Your task to perform on an android device: install app "Paramount+ | Peak Streaming" Image 0: 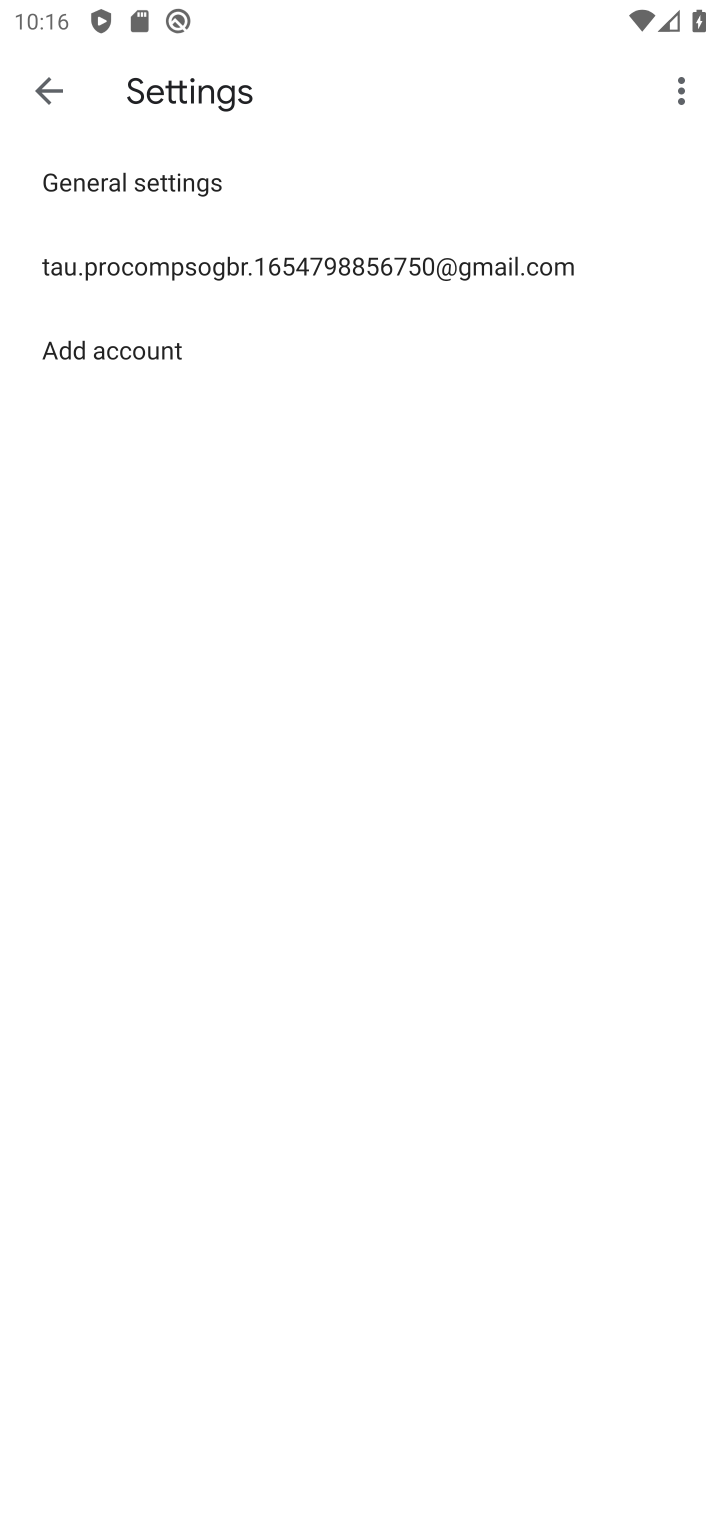
Step 0: press home button
Your task to perform on an android device: install app "Paramount+ | Peak Streaming" Image 1: 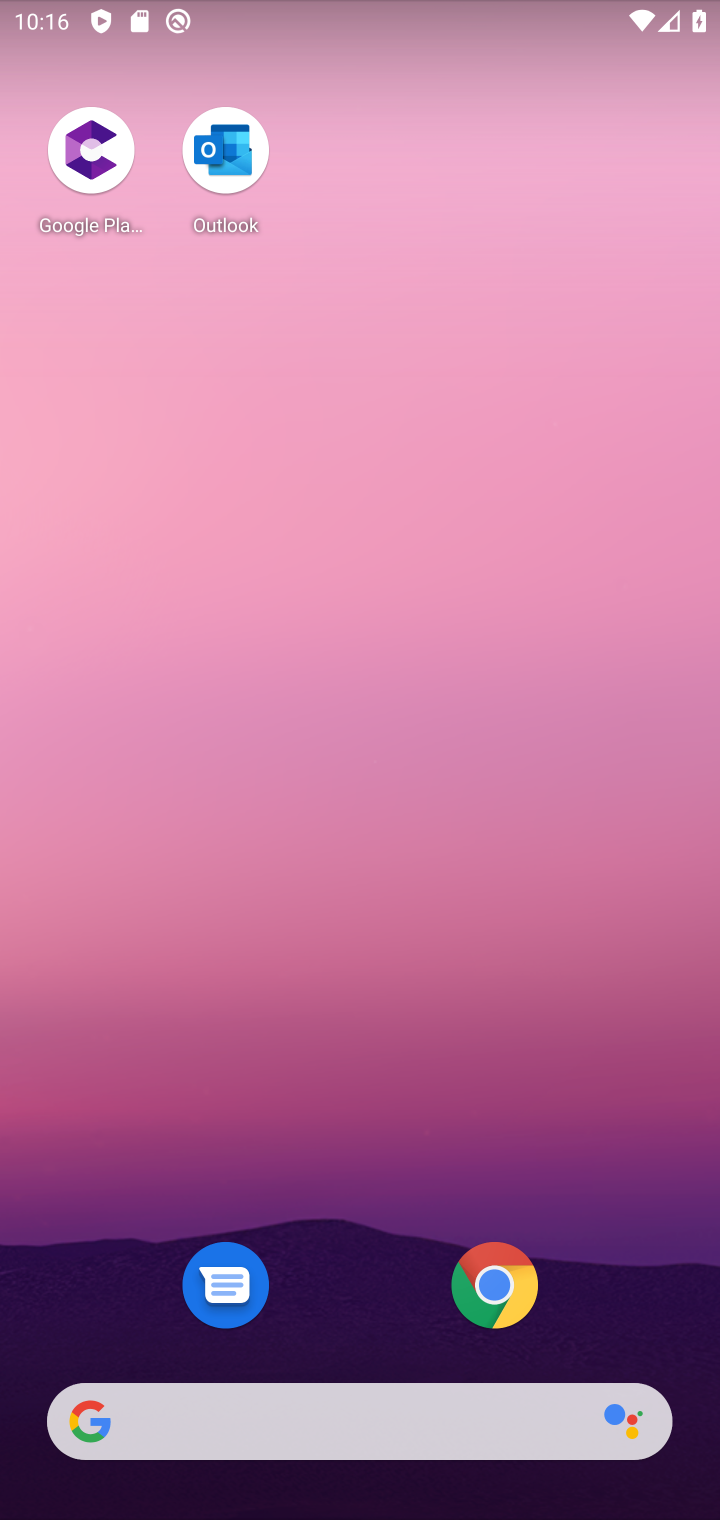
Step 1: drag from (310, 1253) to (303, 222)
Your task to perform on an android device: install app "Paramount+ | Peak Streaming" Image 2: 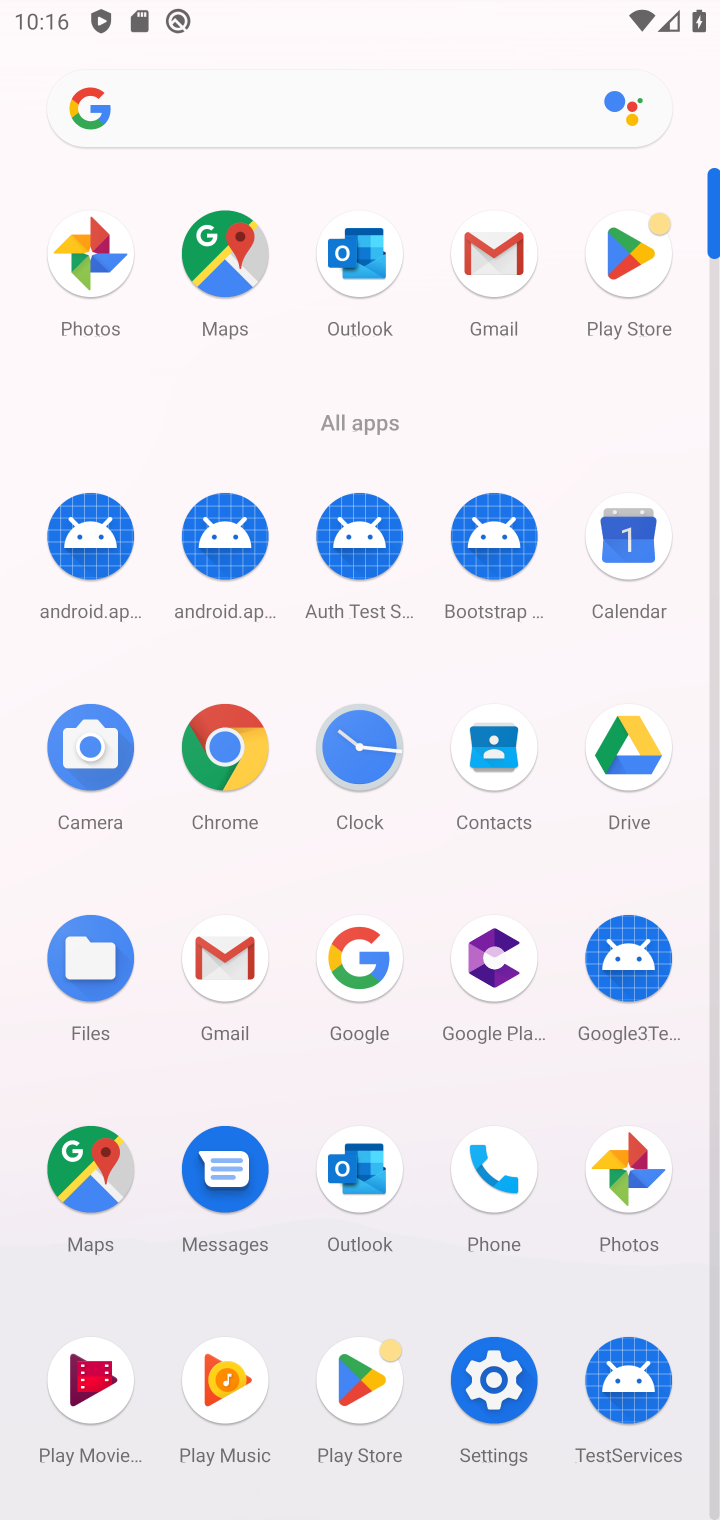
Step 2: click (645, 238)
Your task to perform on an android device: install app "Paramount+ | Peak Streaming" Image 3: 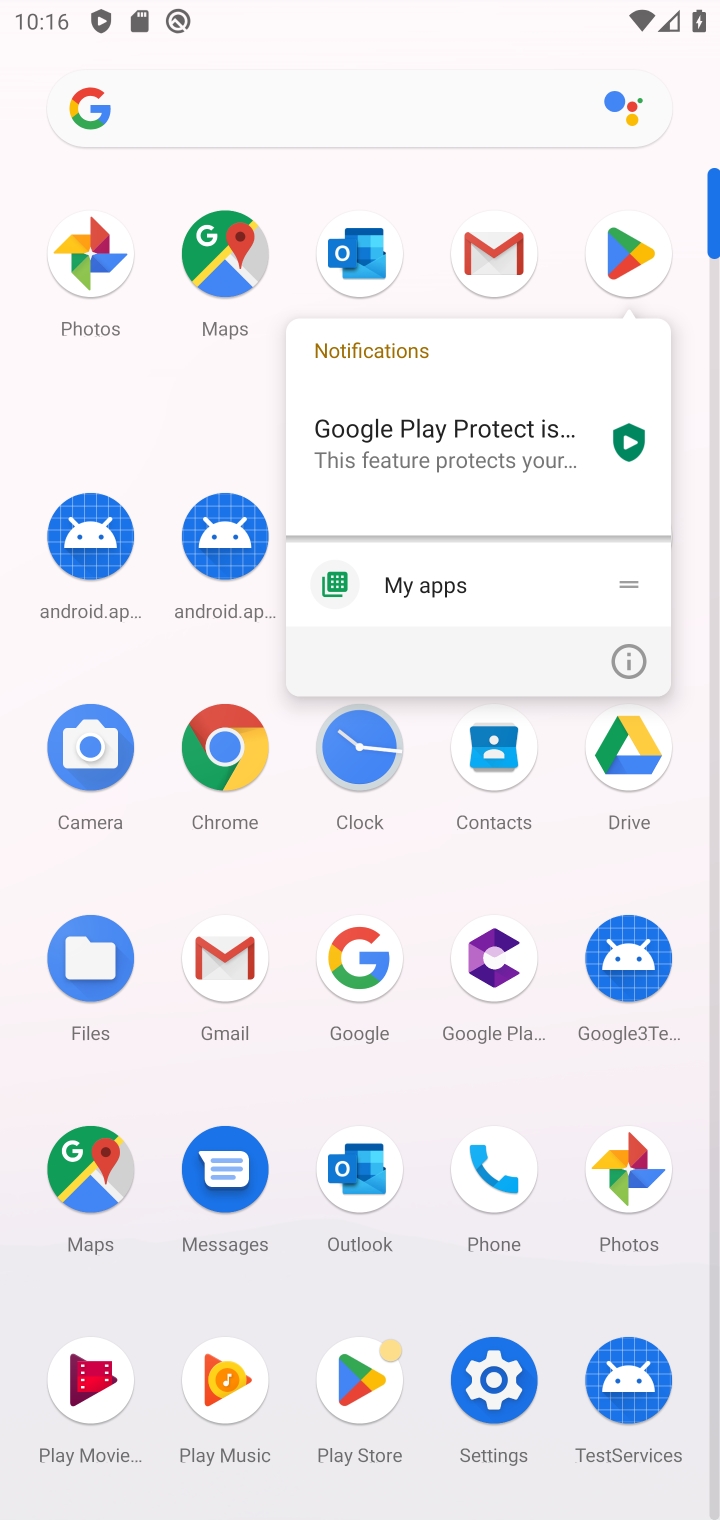
Step 3: click (632, 255)
Your task to perform on an android device: install app "Paramount+ | Peak Streaming" Image 4: 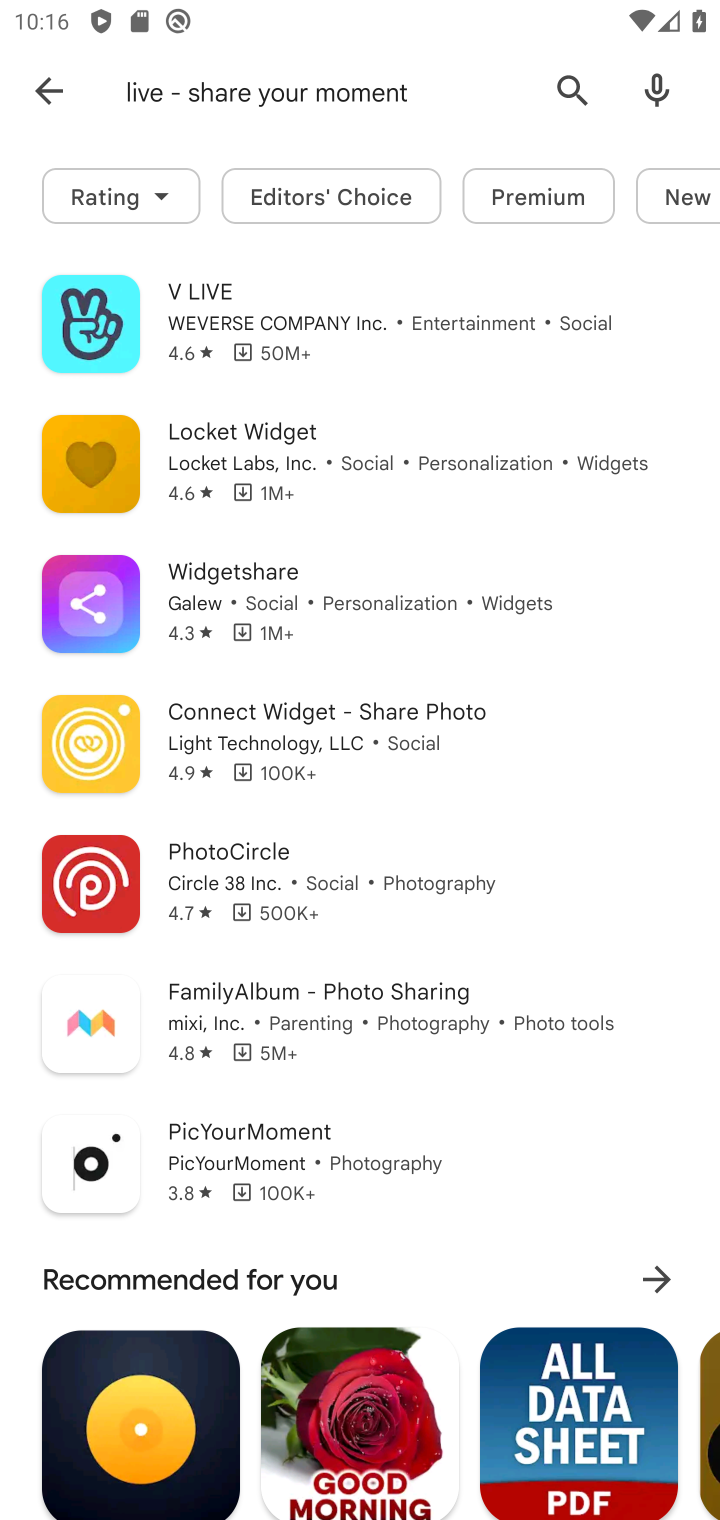
Step 4: click (560, 76)
Your task to perform on an android device: install app "Paramount+ | Peak Streaming" Image 5: 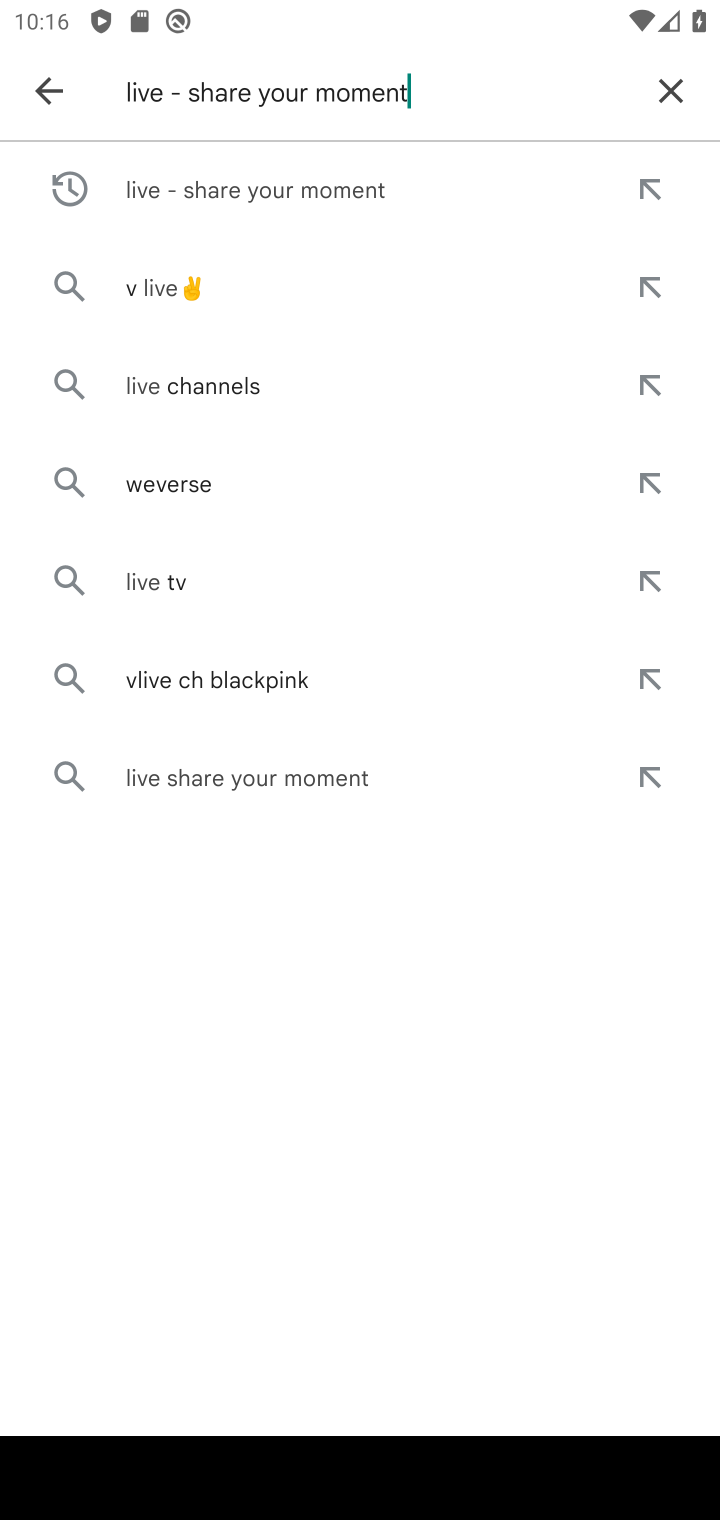
Step 5: click (666, 78)
Your task to perform on an android device: install app "Paramount+ | Peak Streaming" Image 6: 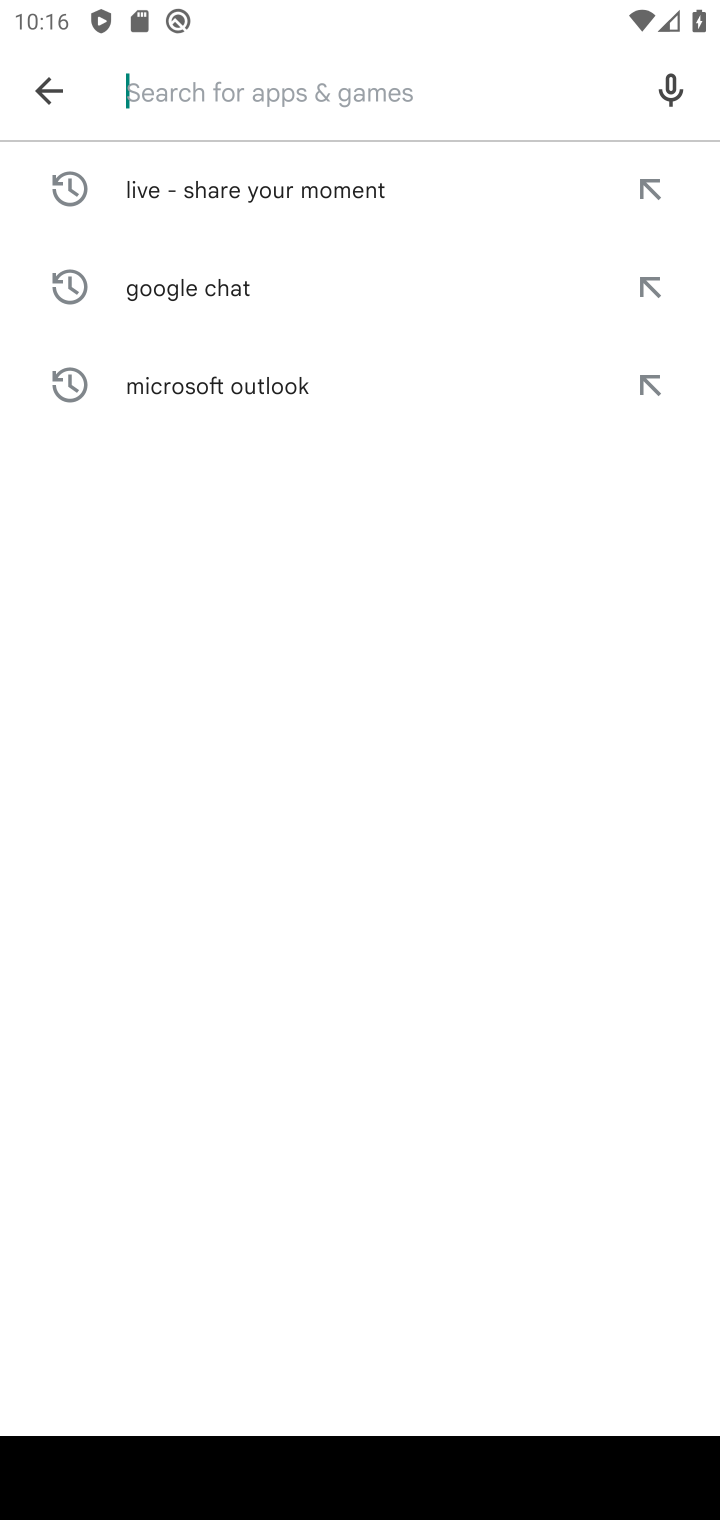
Step 6: type "Paramount+ | Peak Streaming"
Your task to perform on an android device: install app "Paramount+ | Peak Streaming" Image 7: 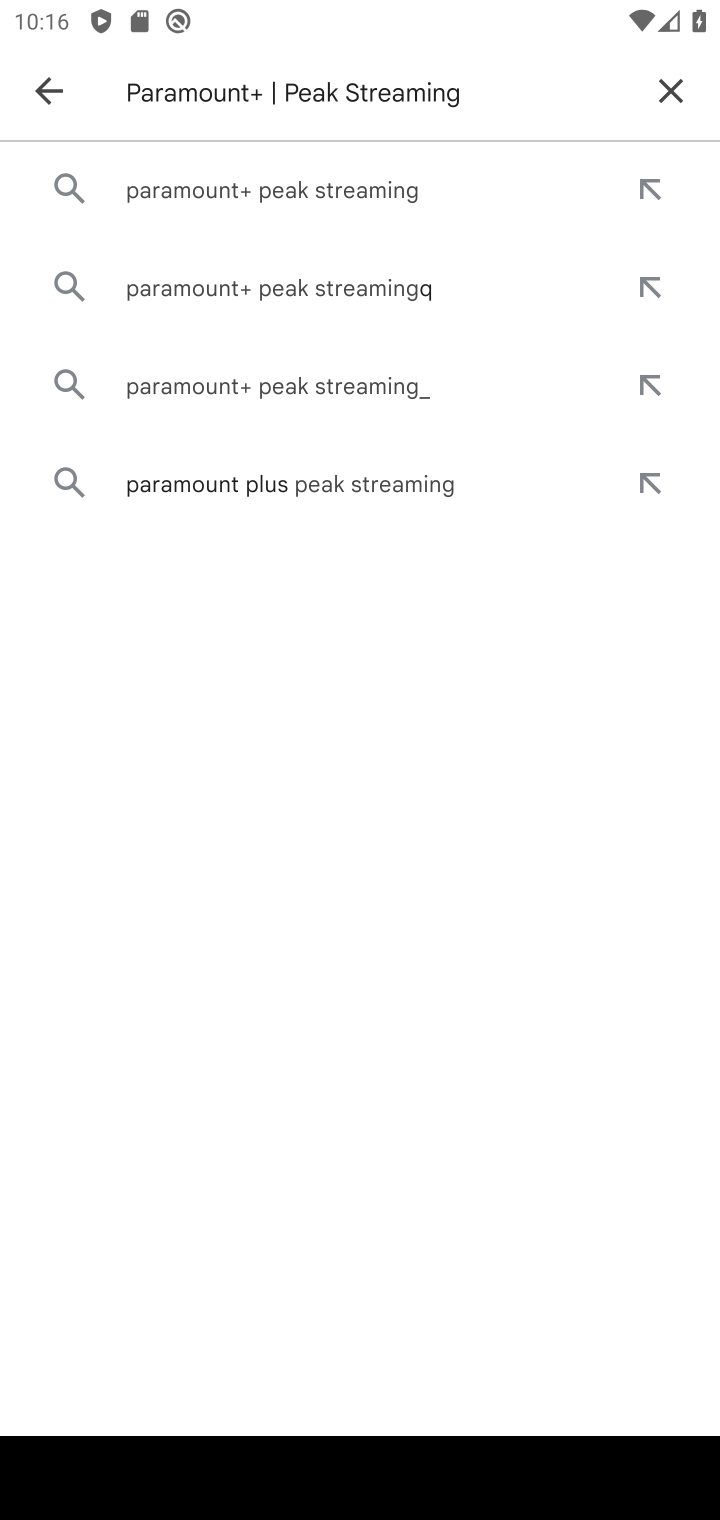
Step 7: click (191, 188)
Your task to perform on an android device: install app "Paramount+ | Peak Streaming" Image 8: 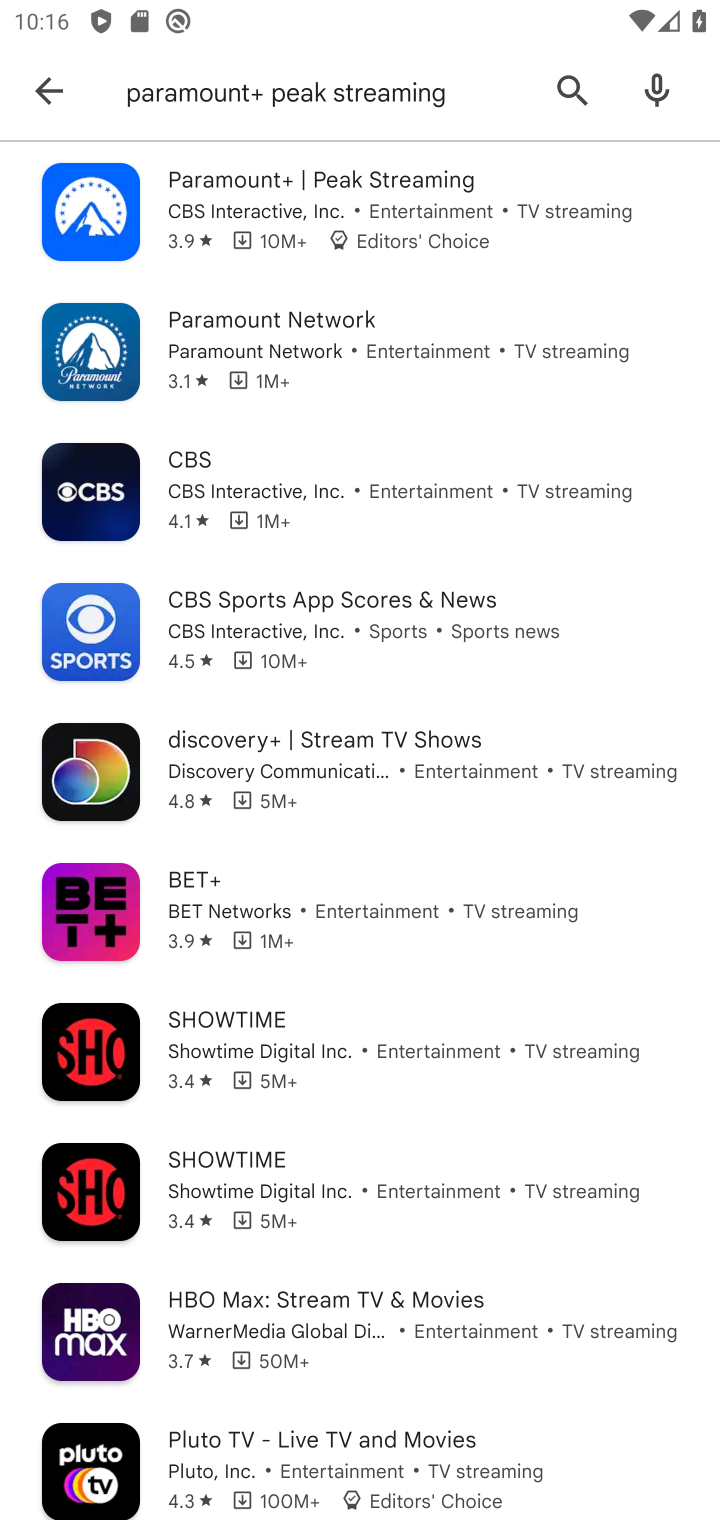
Step 8: click (378, 216)
Your task to perform on an android device: install app "Paramount+ | Peak Streaming" Image 9: 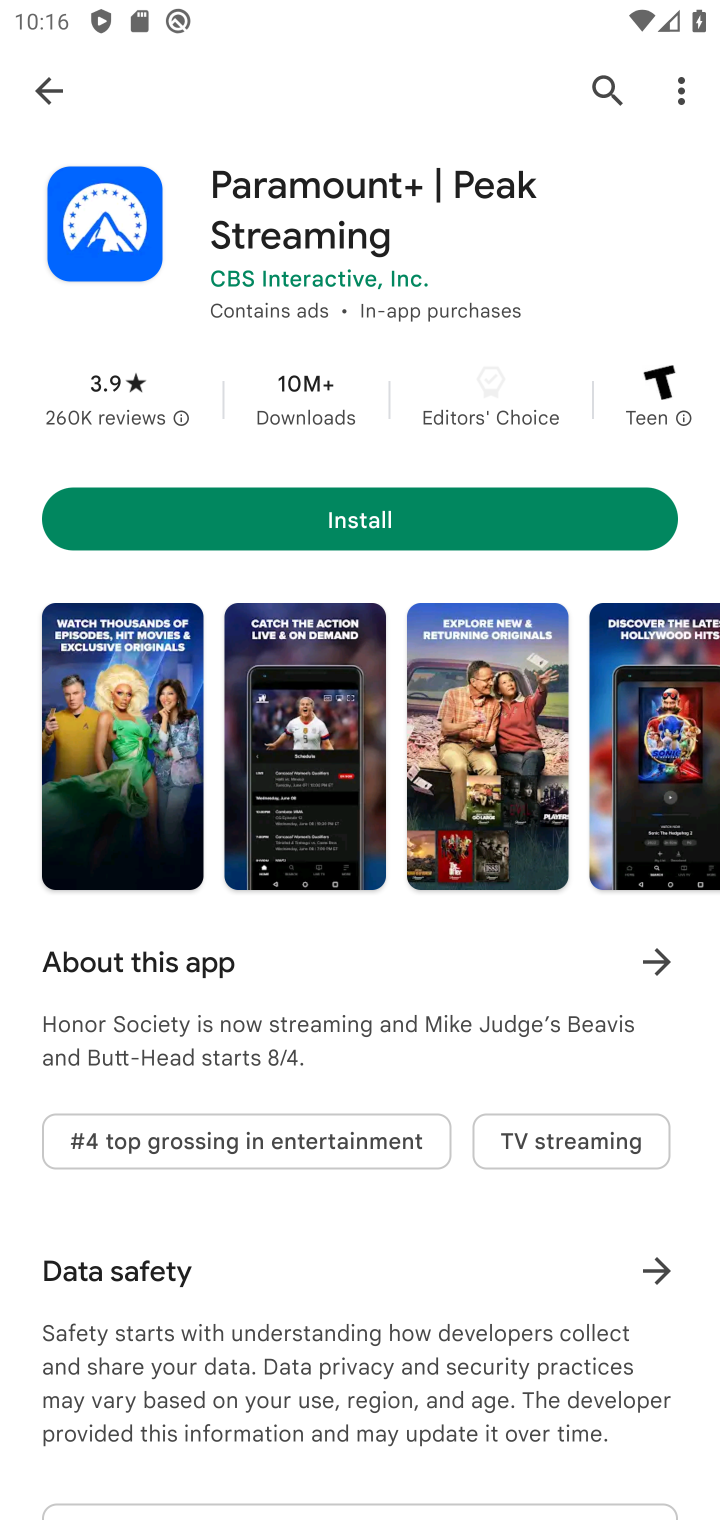
Step 9: click (404, 517)
Your task to perform on an android device: install app "Paramount+ | Peak Streaming" Image 10: 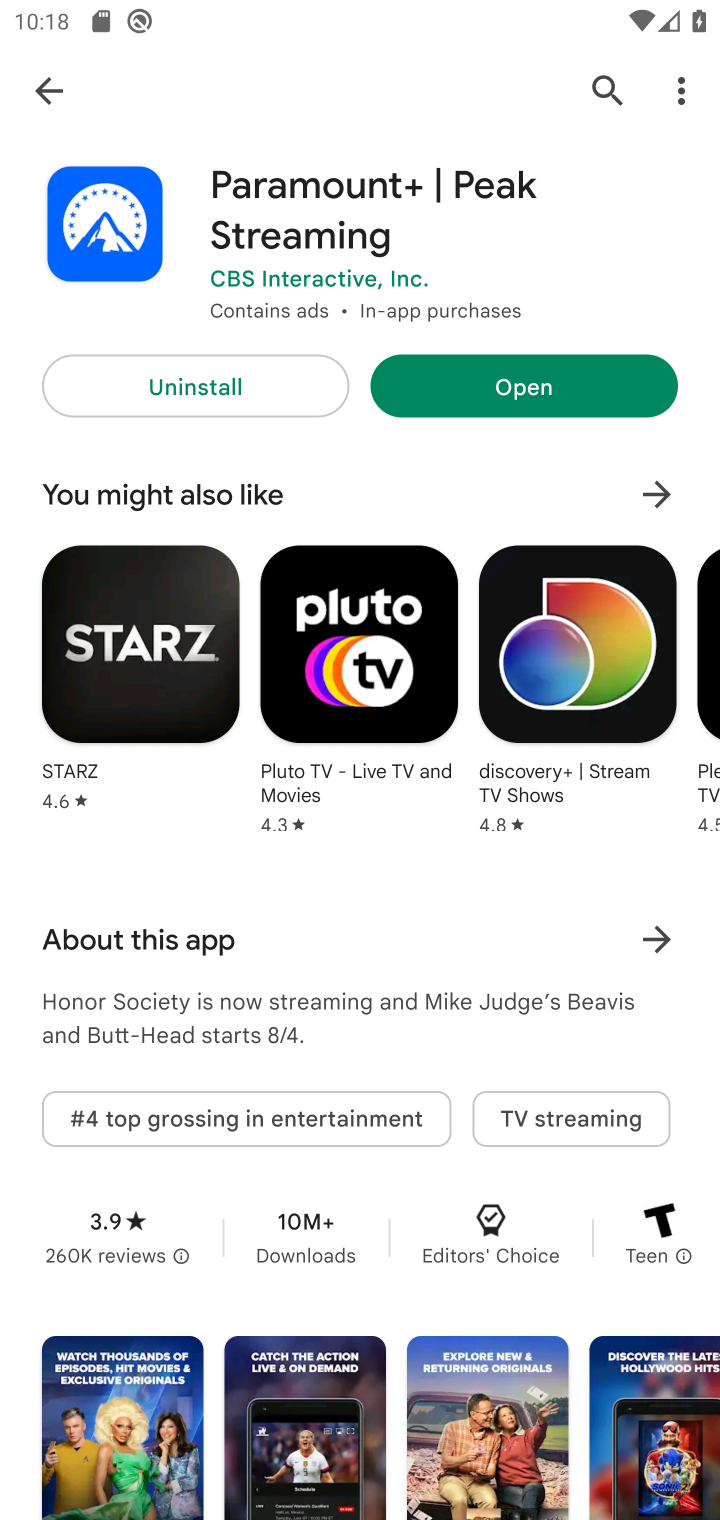
Step 10: click (489, 395)
Your task to perform on an android device: install app "Paramount+ | Peak Streaming" Image 11: 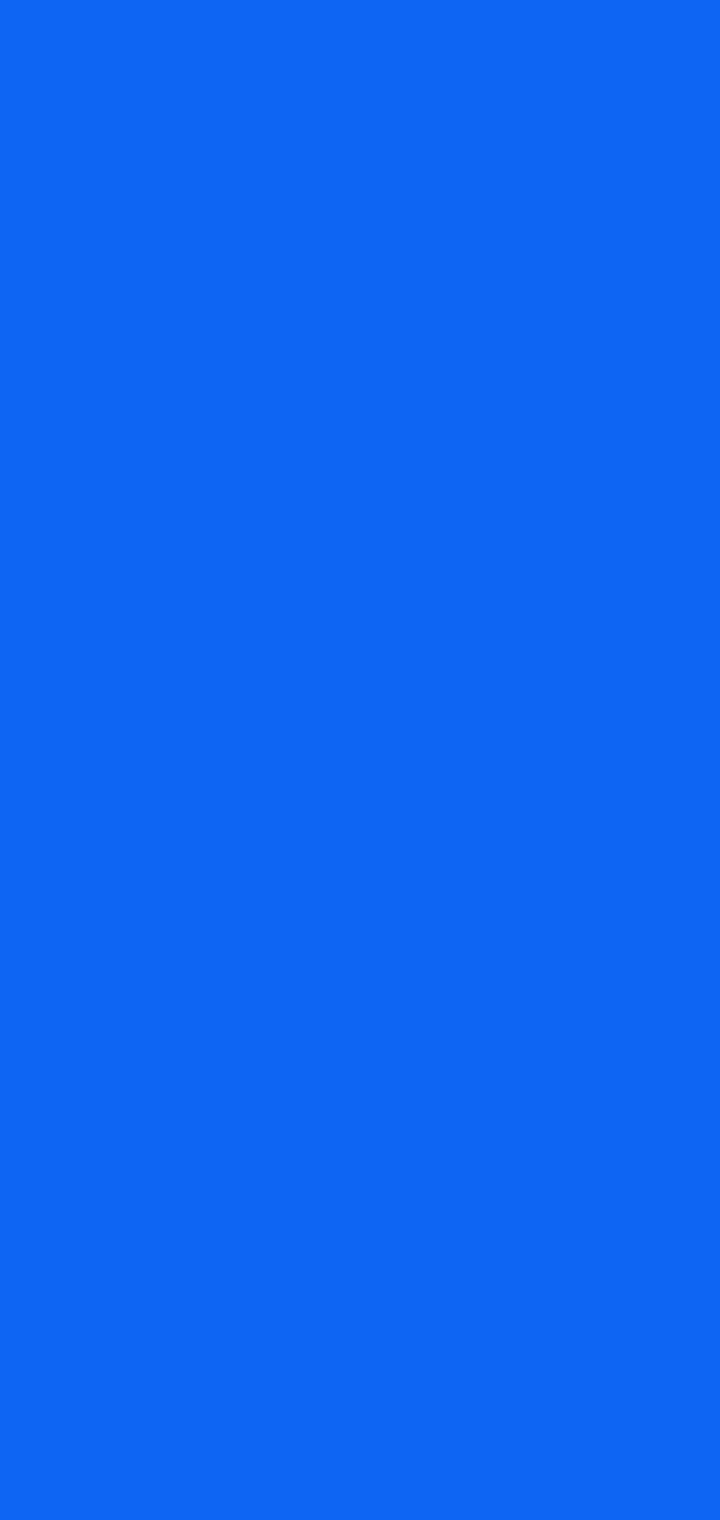
Step 11: task complete